Your task to perform on an android device: Open the calendar and show me this week's events? Image 0: 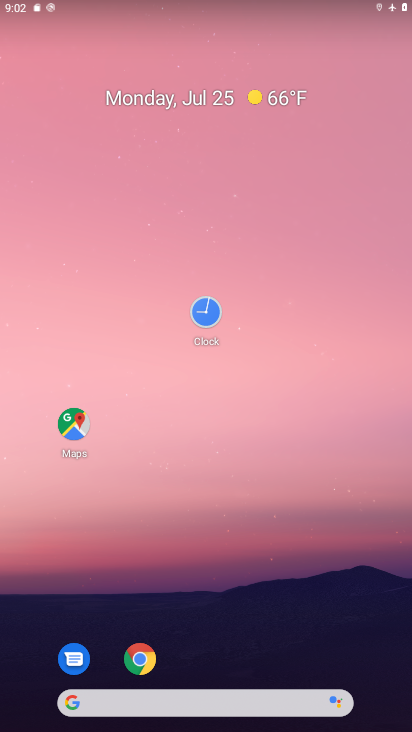
Step 0: drag from (296, 654) to (234, 226)
Your task to perform on an android device: Open the calendar and show me this week's events? Image 1: 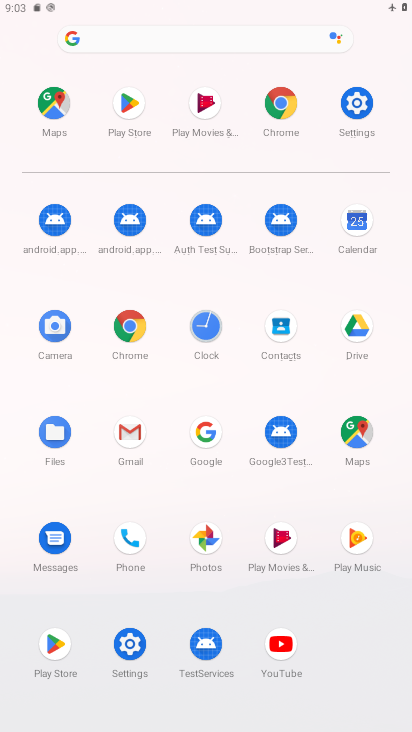
Step 1: click (362, 214)
Your task to perform on an android device: Open the calendar and show me this week's events? Image 2: 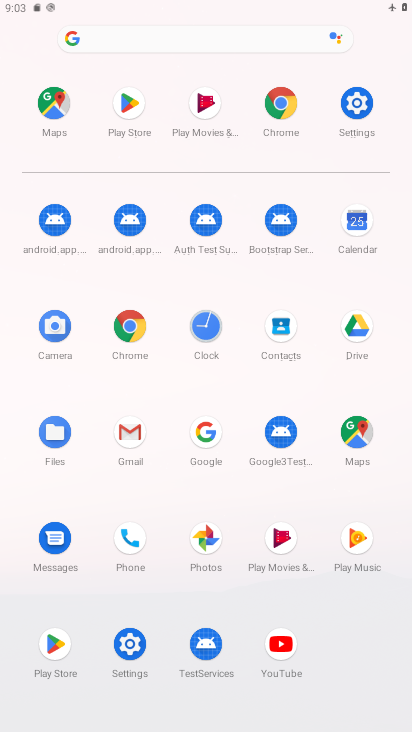
Step 2: click (361, 218)
Your task to perform on an android device: Open the calendar and show me this week's events? Image 3: 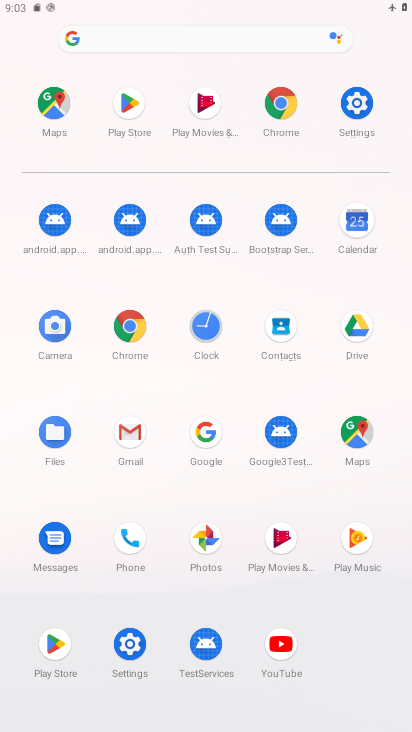
Step 3: click (363, 217)
Your task to perform on an android device: Open the calendar and show me this week's events? Image 4: 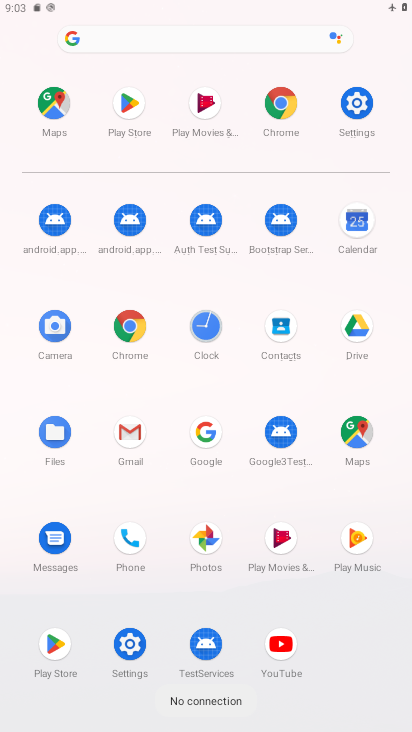
Step 4: click (358, 217)
Your task to perform on an android device: Open the calendar and show me this week's events? Image 5: 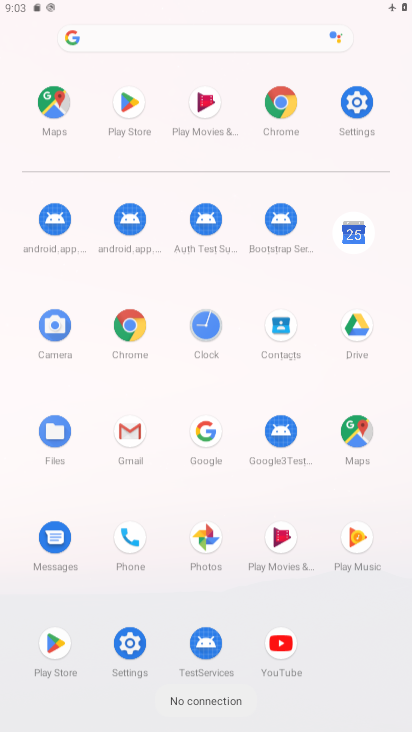
Step 5: click (359, 227)
Your task to perform on an android device: Open the calendar and show me this week's events? Image 6: 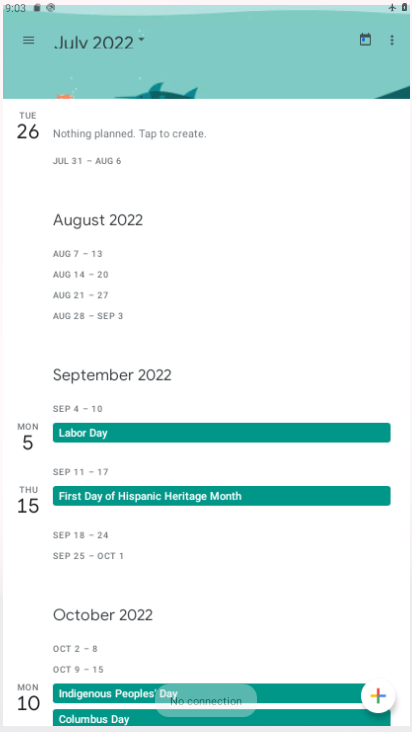
Step 6: click (359, 227)
Your task to perform on an android device: Open the calendar and show me this week's events? Image 7: 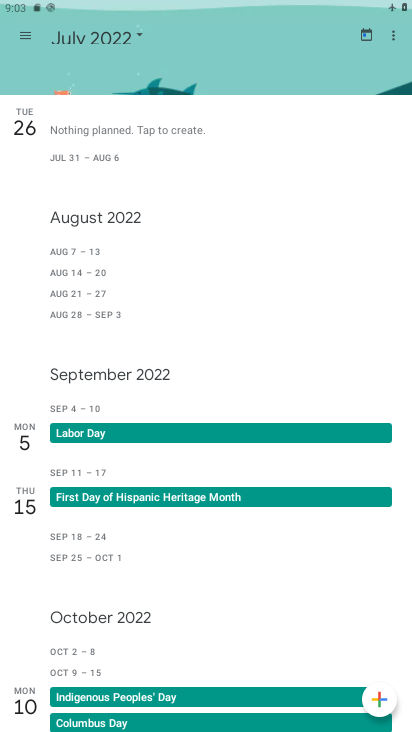
Step 7: click (359, 229)
Your task to perform on an android device: Open the calendar and show me this week's events? Image 8: 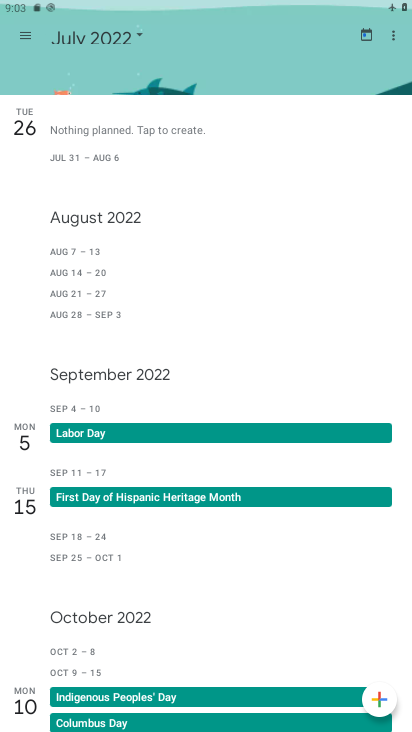
Step 8: click (141, 33)
Your task to perform on an android device: Open the calendar and show me this week's events? Image 9: 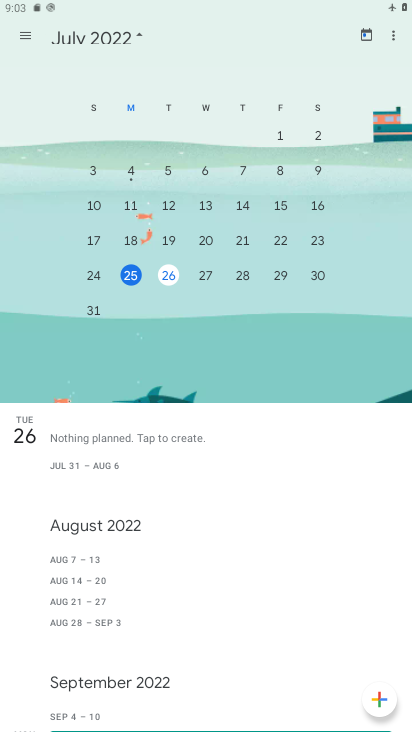
Step 9: click (275, 270)
Your task to perform on an android device: Open the calendar and show me this week's events? Image 10: 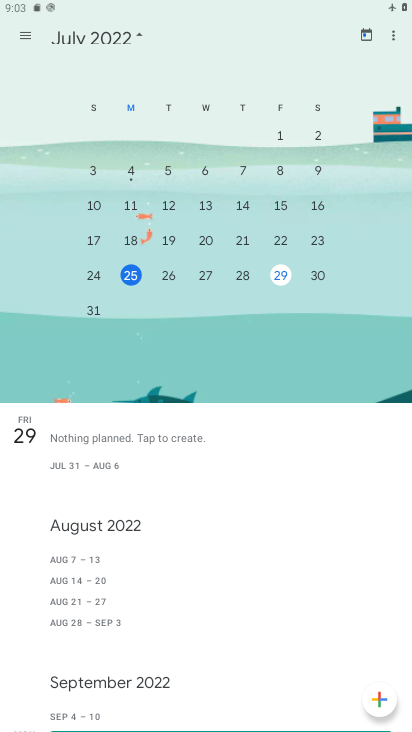
Step 10: click (274, 269)
Your task to perform on an android device: Open the calendar and show me this week's events? Image 11: 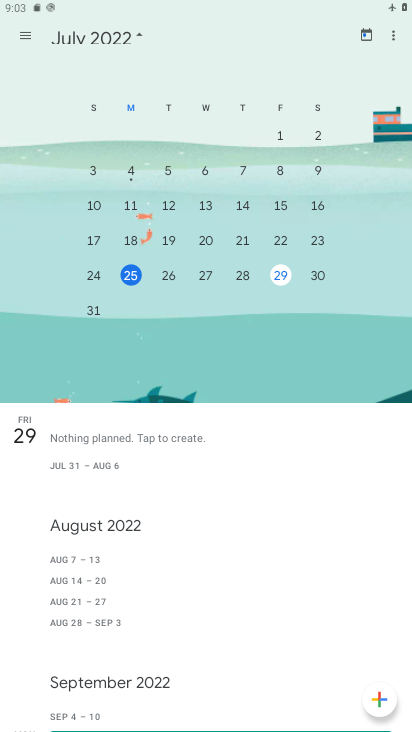
Step 11: task complete